Your task to perform on an android device: Is it going to rain tomorrow? Image 0: 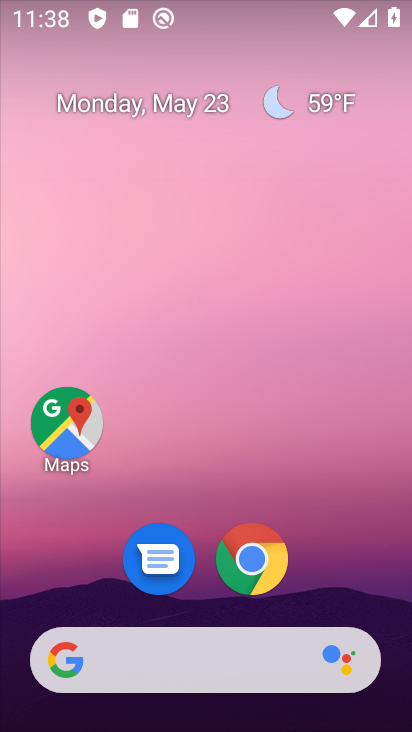
Step 0: drag from (392, 635) to (274, 16)
Your task to perform on an android device: Is it going to rain tomorrow? Image 1: 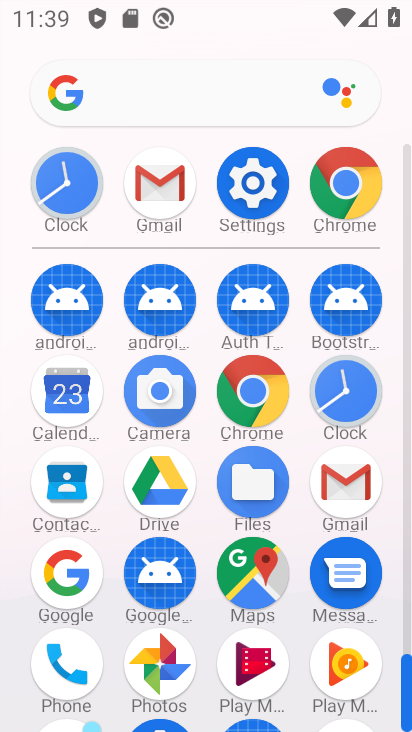
Step 1: click (83, 588)
Your task to perform on an android device: Is it going to rain tomorrow? Image 2: 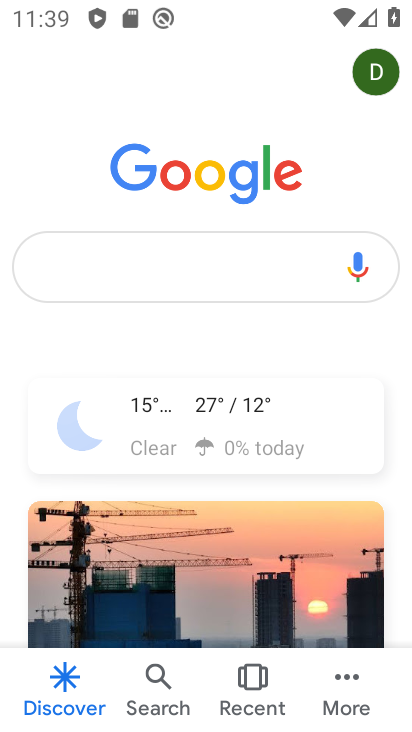
Step 2: click (196, 265)
Your task to perform on an android device: Is it going to rain tomorrow? Image 3: 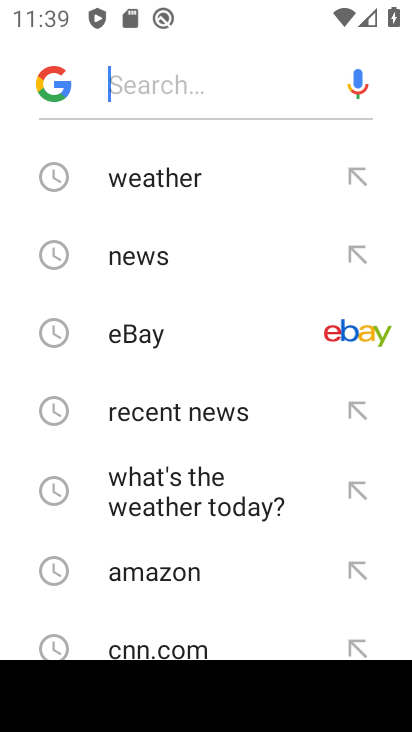
Step 3: drag from (185, 558) to (214, 123)
Your task to perform on an android device: Is it going to rain tomorrow? Image 4: 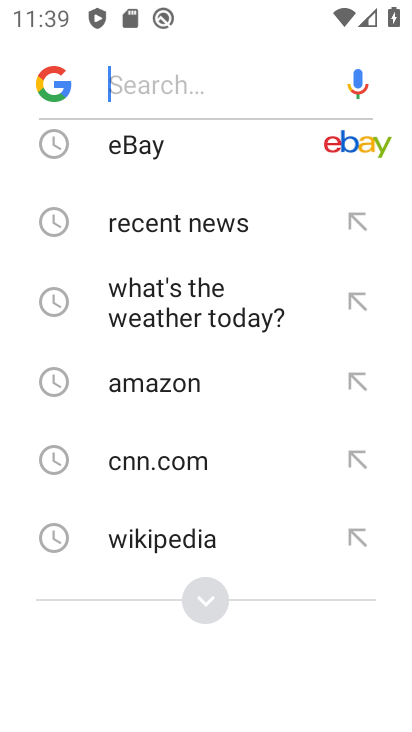
Step 4: click (213, 588)
Your task to perform on an android device: Is it going to rain tomorrow? Image 5: 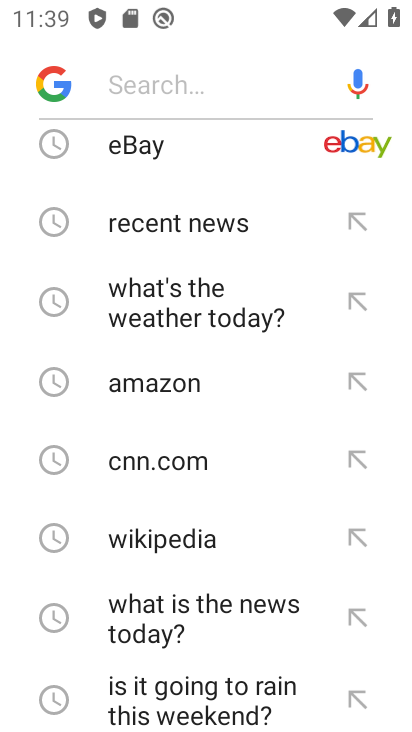
Step 5: drag from (180, 684) to (232, 278)
Your task to perform on an android device: Is it going to rain tomorrow? Image 6: 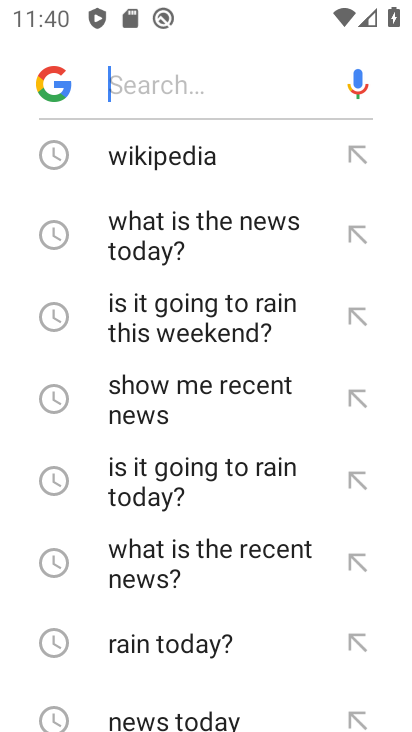
Step 6: drag from (194, 610) to (245, 259)
Your task to perform on an android device: Is it going to rain tomorrow? Image 7: 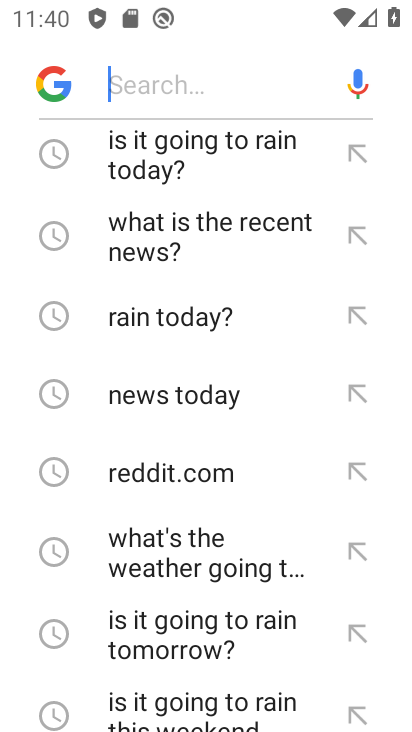
Step 7: click (212, 649)
Your task to perform on an android device: Is it going to rain tomorrow? Image 8: 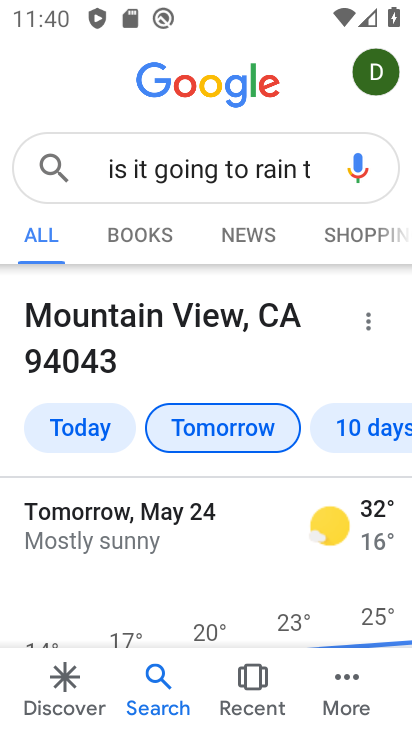
Step 8: task complete